Your task to perform on an android device: open a new tab in the chrome app Image 0: 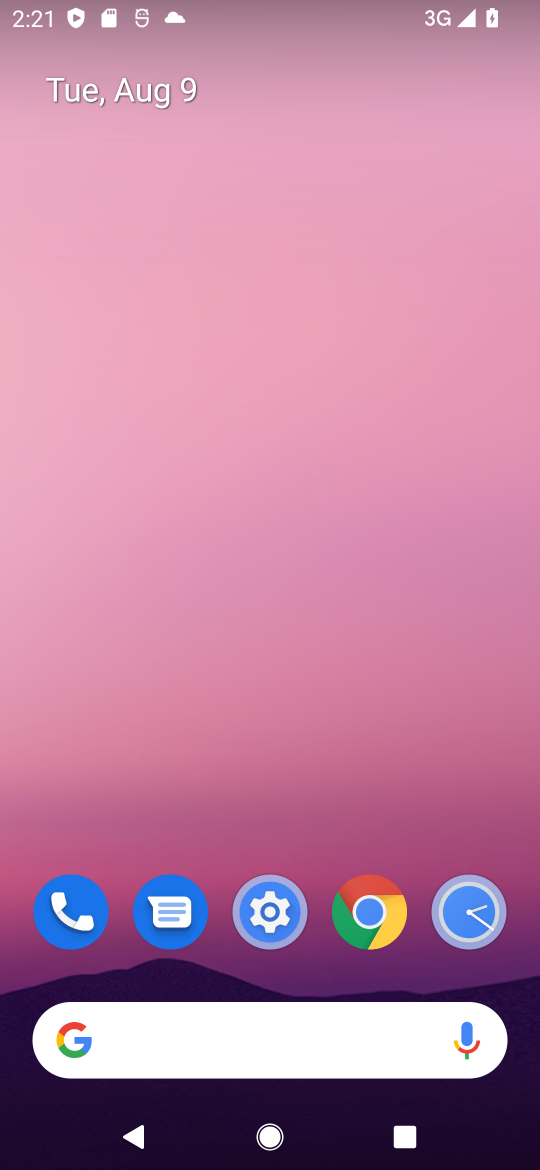
Step 0: click (370, 909)
Your task to perform on an android device: open a new tab in the chrome app Image 1: 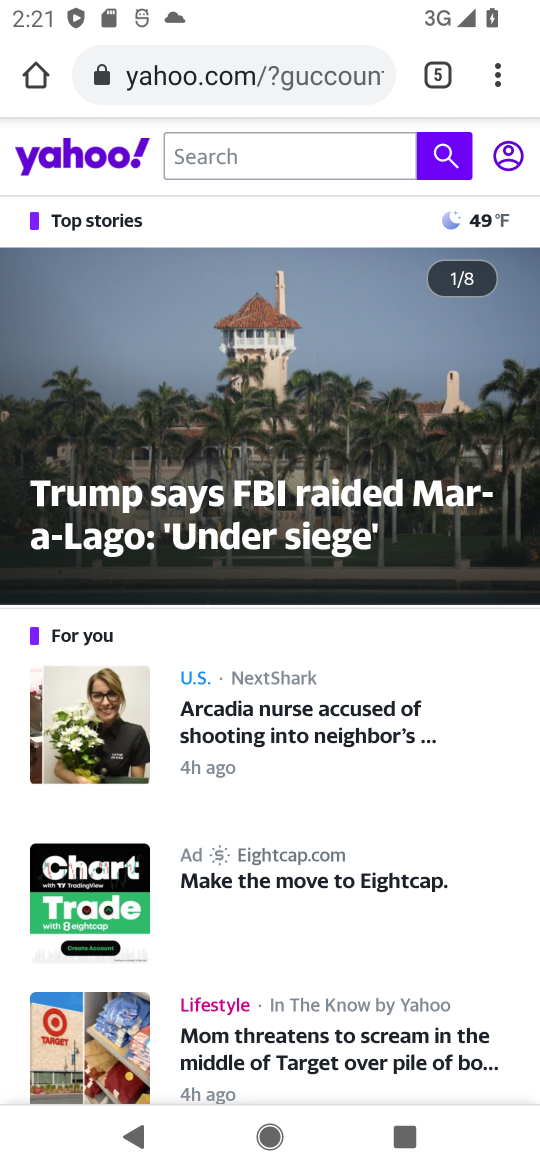
Step 1: click (496, 71)
Your task to perform on an android device: open a new tab in the chrome app Image 2: 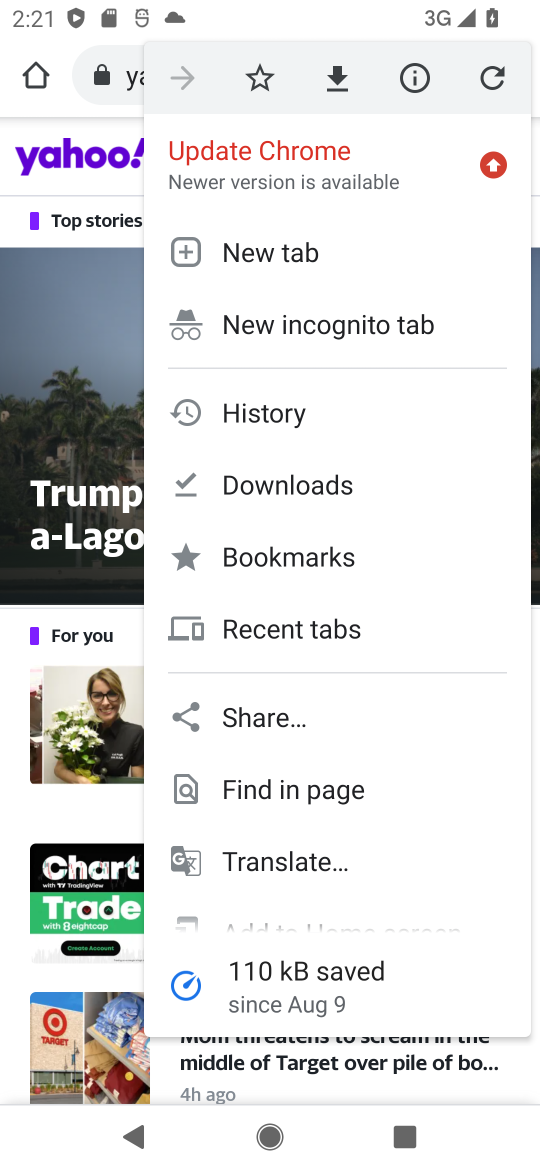
Step 2: click (273, 251)
Your task to perform on an android device: open a new tab in the chrome app Image 3: 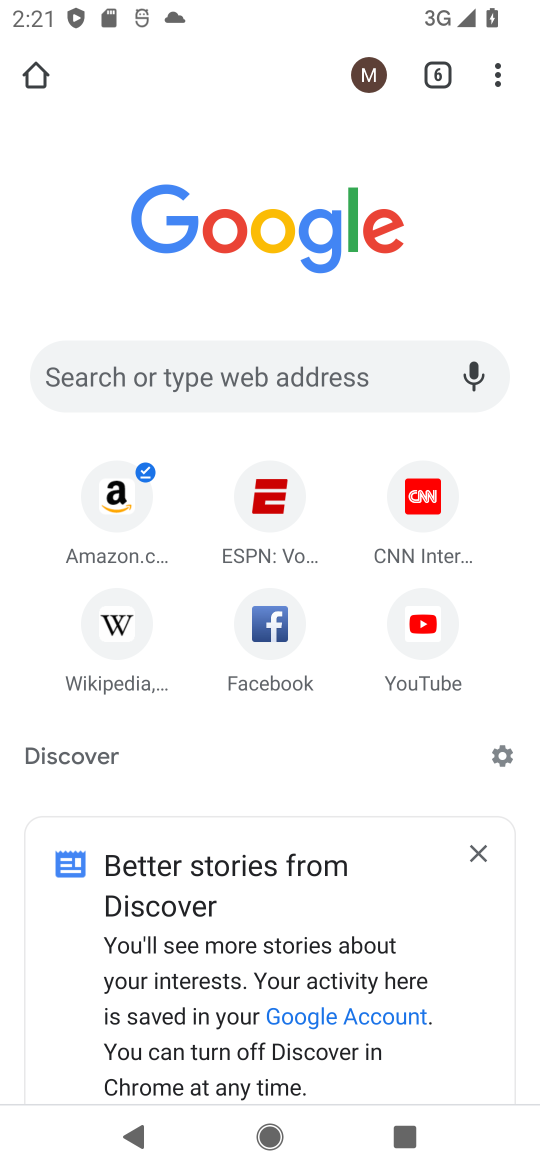
Step 3: task complete